Your task to perform on an android device: Open the calendar and show me this week's events Image 0: 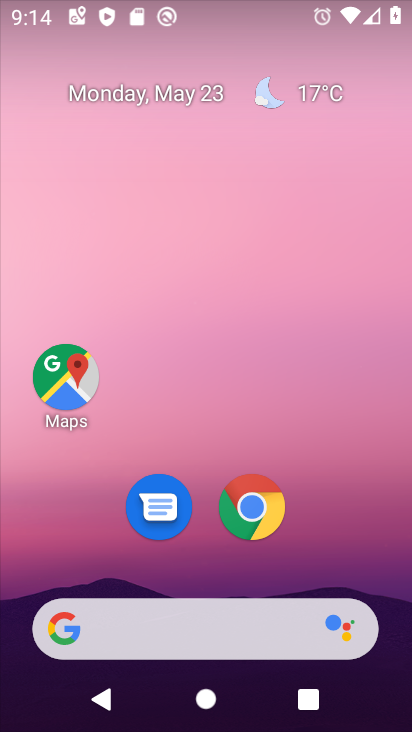
Step 0: drag from (369, 582) to (353, 16)
Your task to perform on an android device: Open the calendar and show me this week's events Image 1: 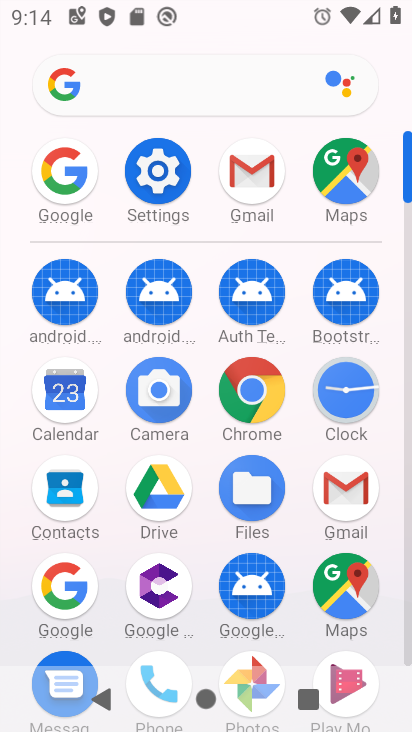
Step 1: click (58, 406)
Your task to perform on an android device: Open the calendar and show me this week's events Image 2: 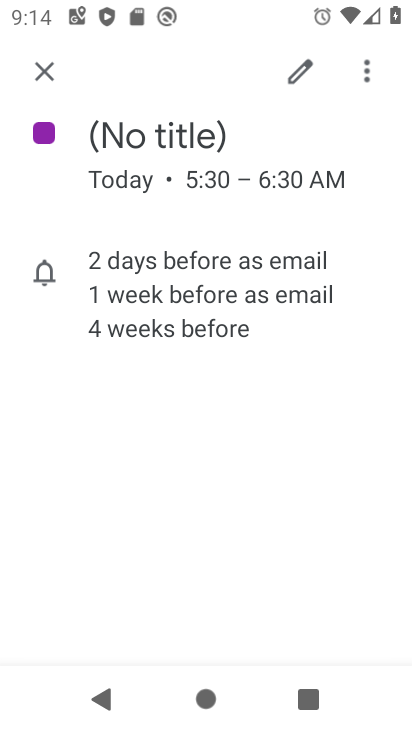
Step 2: click (44, 76)
Your task to perform on an android device: Open the calendar and show me this week's events Image 3: 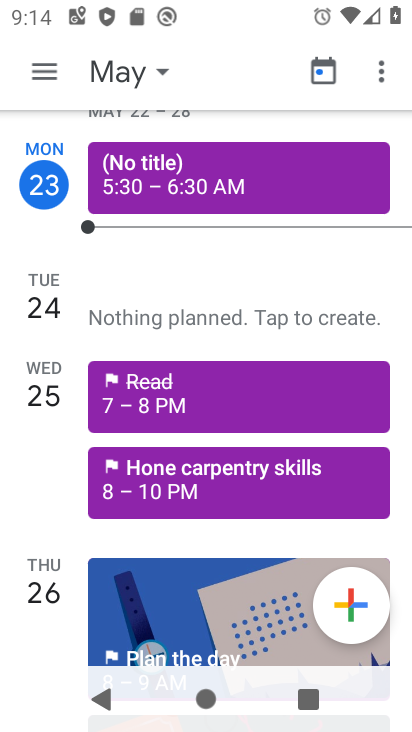
Step 3: click (44, 76)
Your task to perform on an android device: Open the calendar and show me this week's events Image 4: 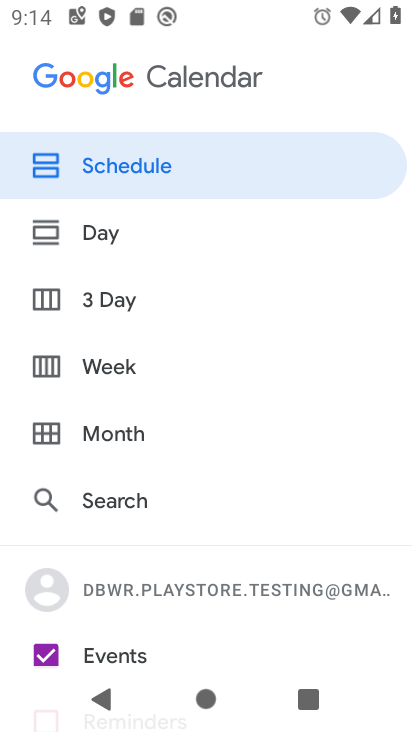
Step 4: click (97, 543)
Your task to perform on an android device: Open the calendar and show me this week's events Image 5: 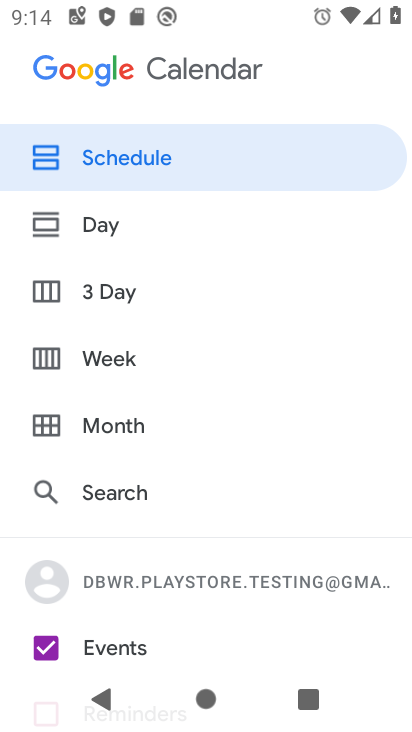
Step 5: click (106, 366)
Your task to perform on an android device: Open the calendar and show me this week's events Image 6: 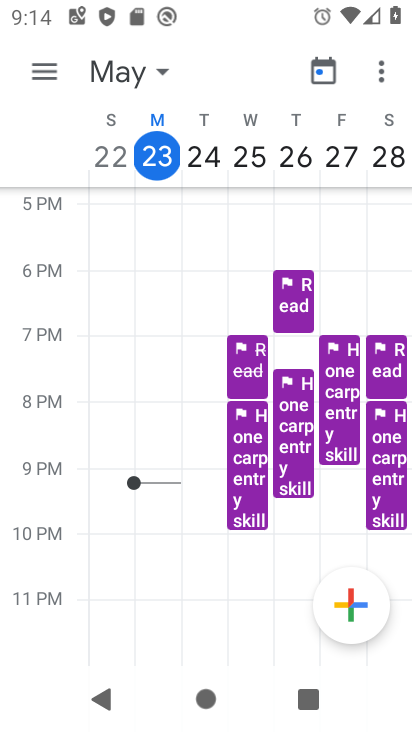
Step 6: task complete